Your task to perform on an android device: install app "NewsBreak: Local News & Alerts" Image 0: 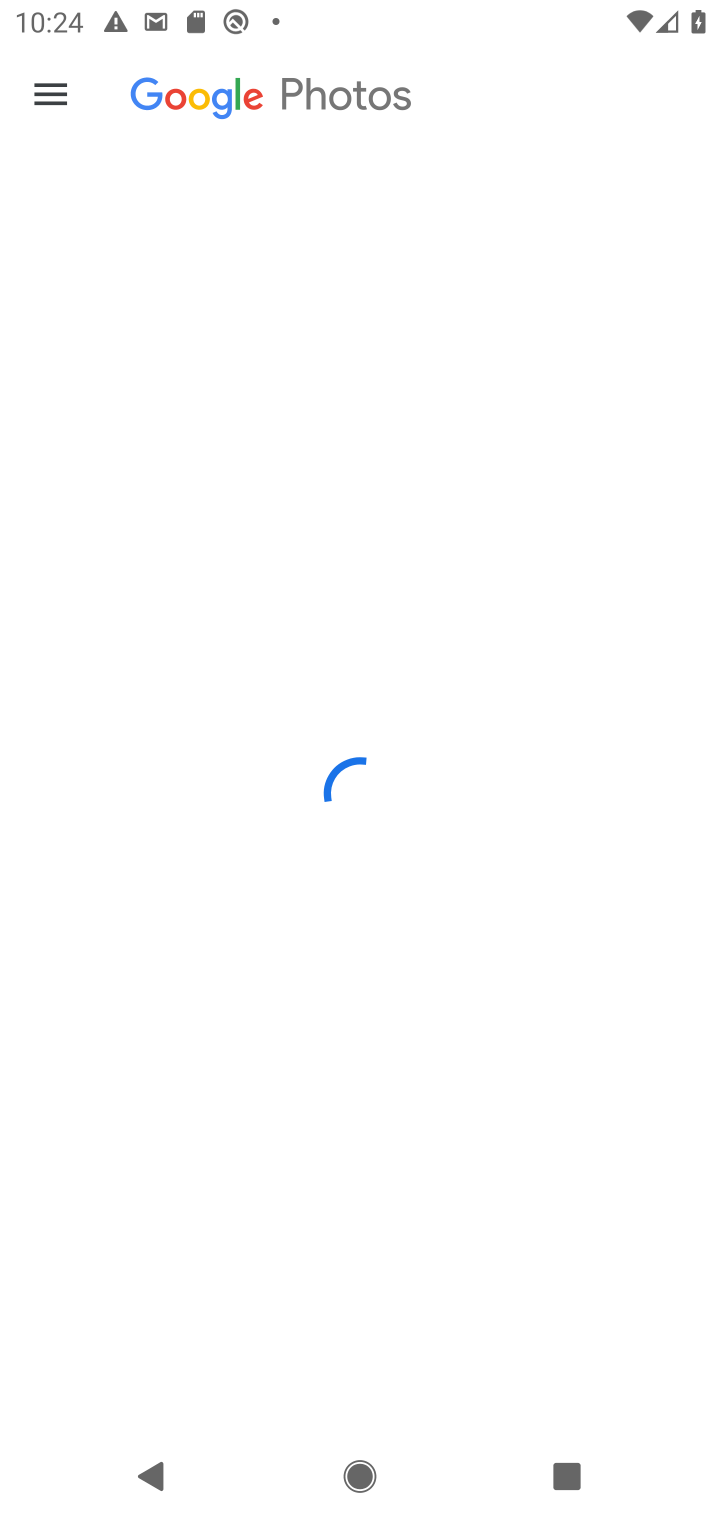
Step 0: press home button
Your task to perform on an android device: install app "NewsBreak: Local News & Alerts" Image 1: 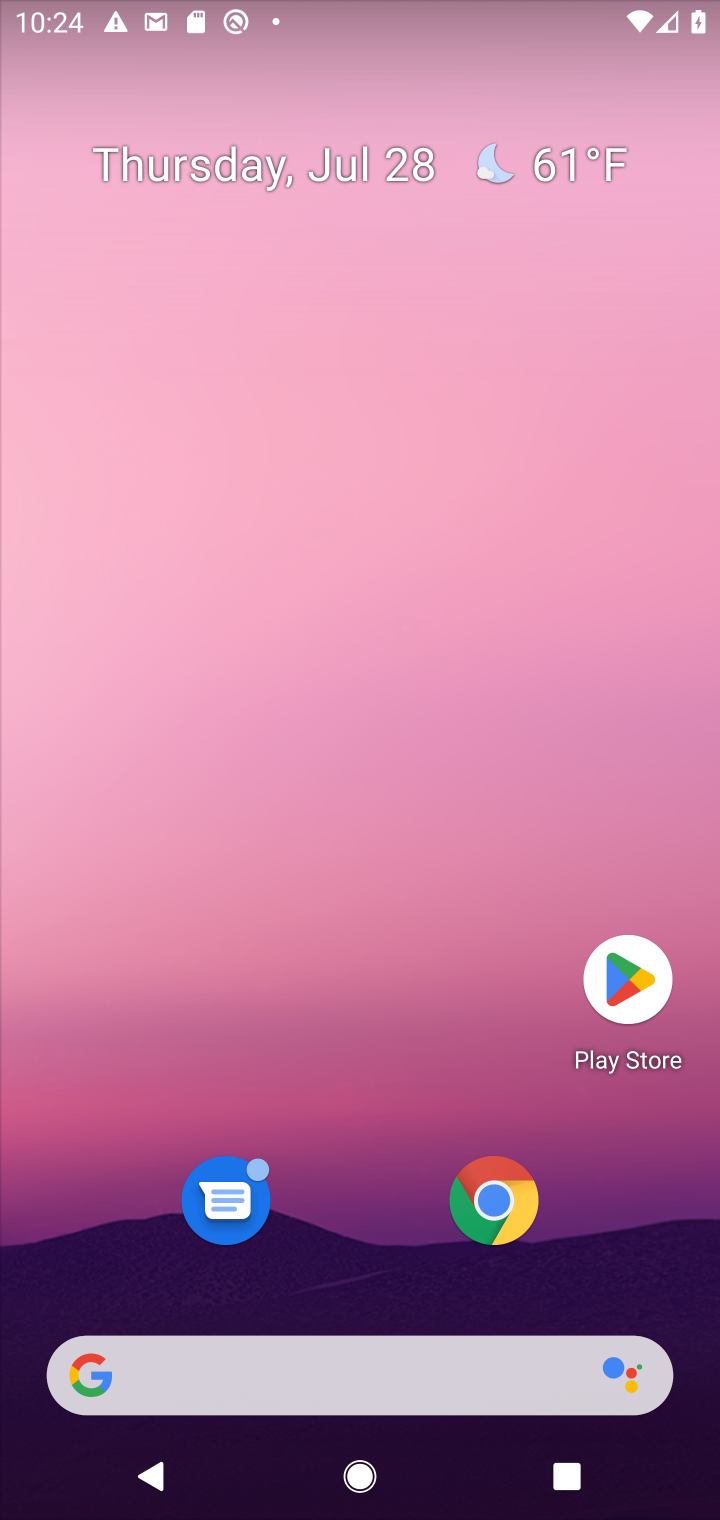
Step 1: click (634, 981)
Your task to perform on an android device: install app "NewsBreak: Local News & Alerts" Image 2: 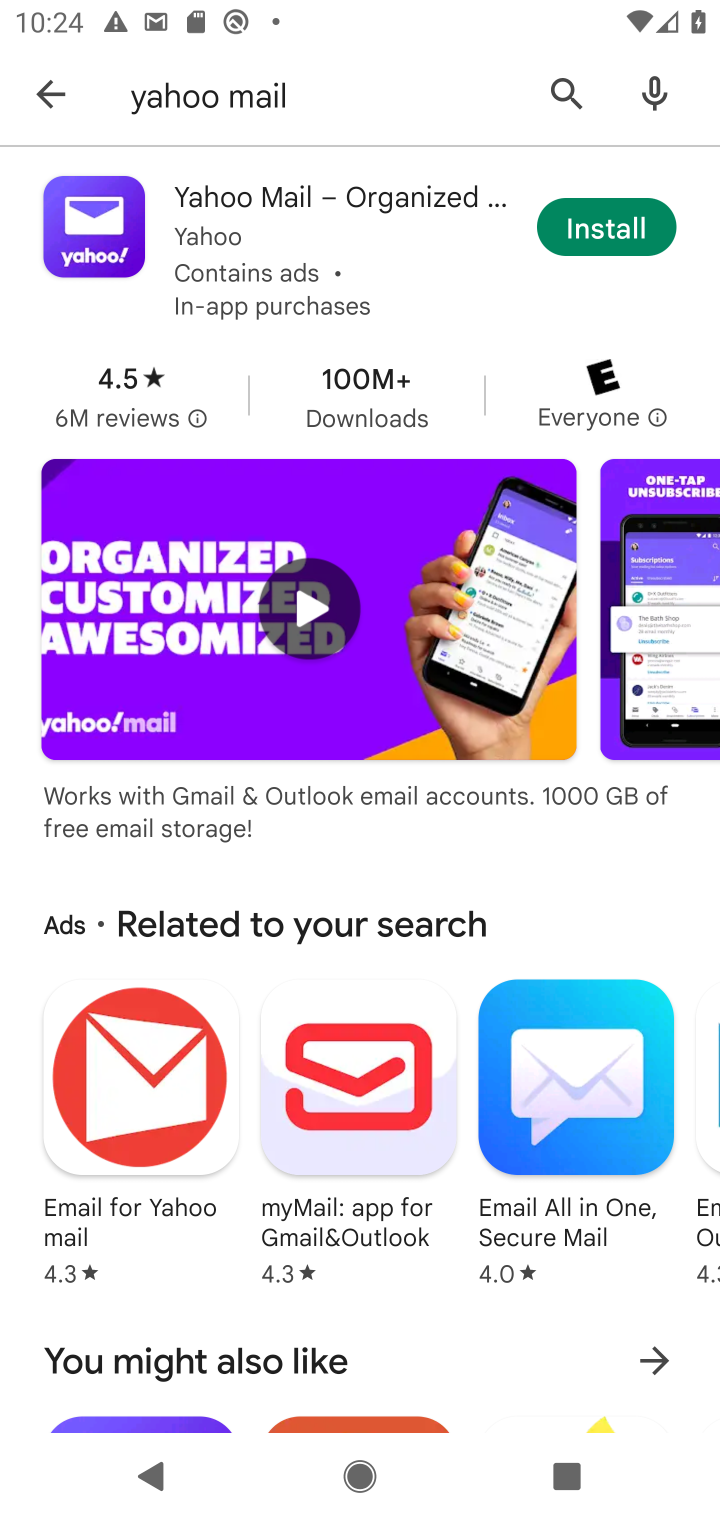
Step 2: click (565, 72)
Your task to perform on an android device: install app "NewsBreak: Local News & Alerts" Image 3: 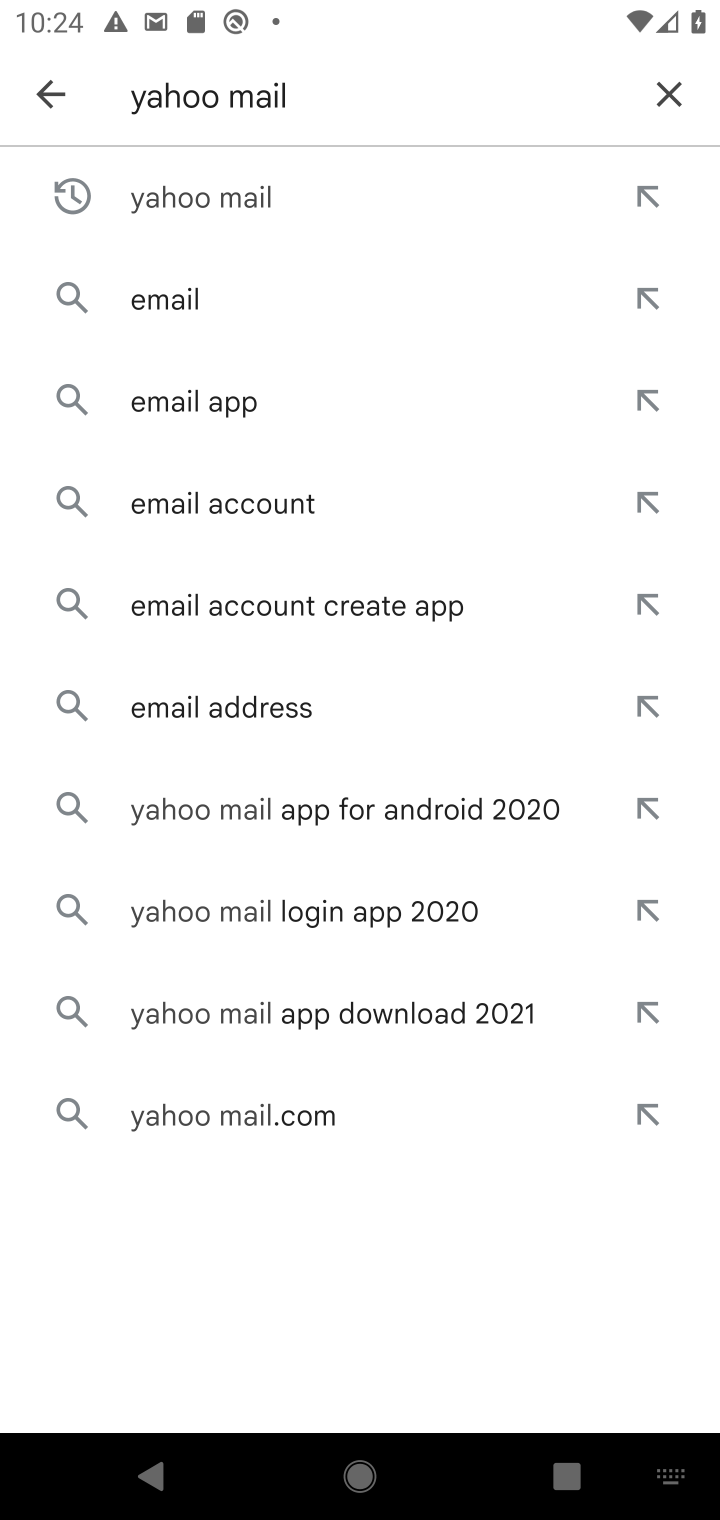
Step 3: click (670, 84)
Your task to perform on an android device: install app "NewsBreak: Local News & Alerts" Image 4: 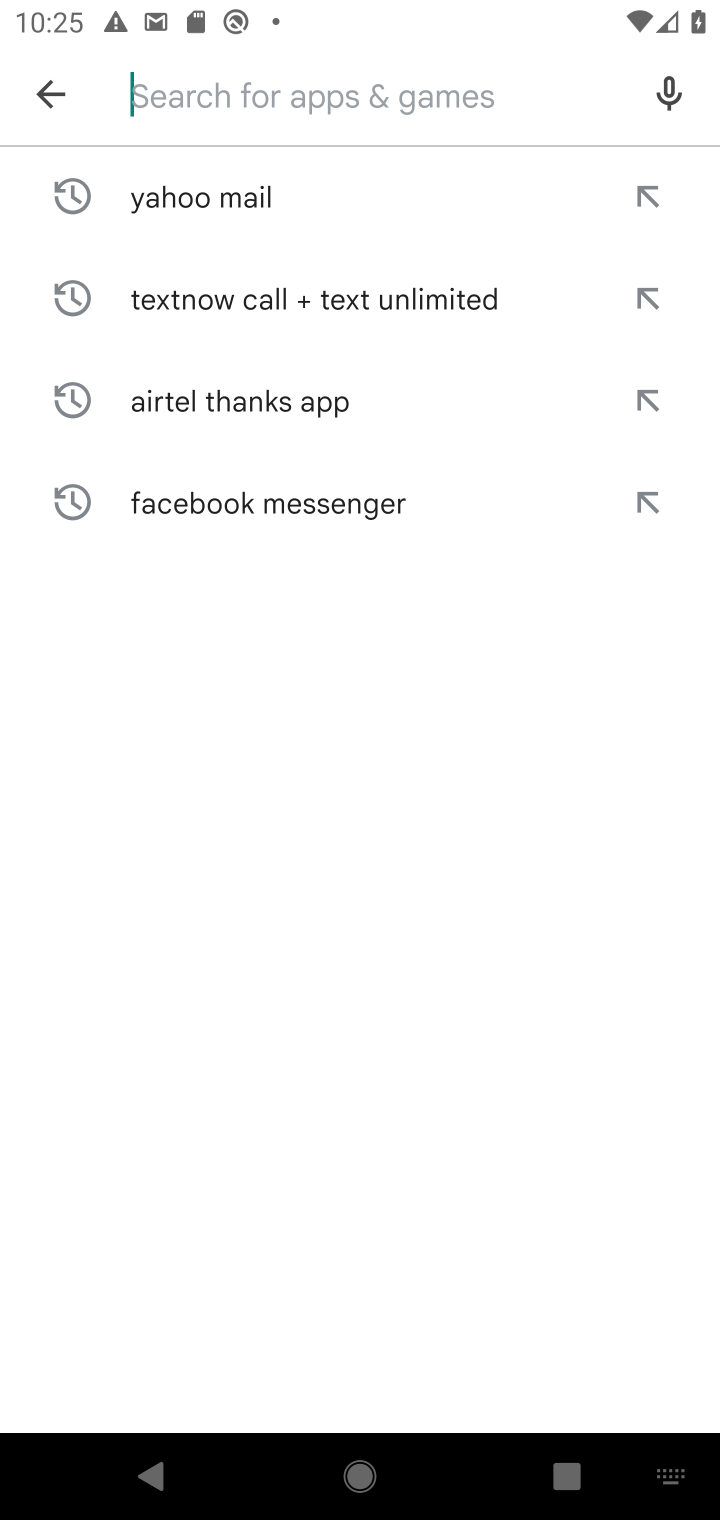
Step 4: type "NewsBreak: Local News & Alerts"
Your task to perform on an android device: install app "NewsBreak: Local News & Alerts" Image 5: 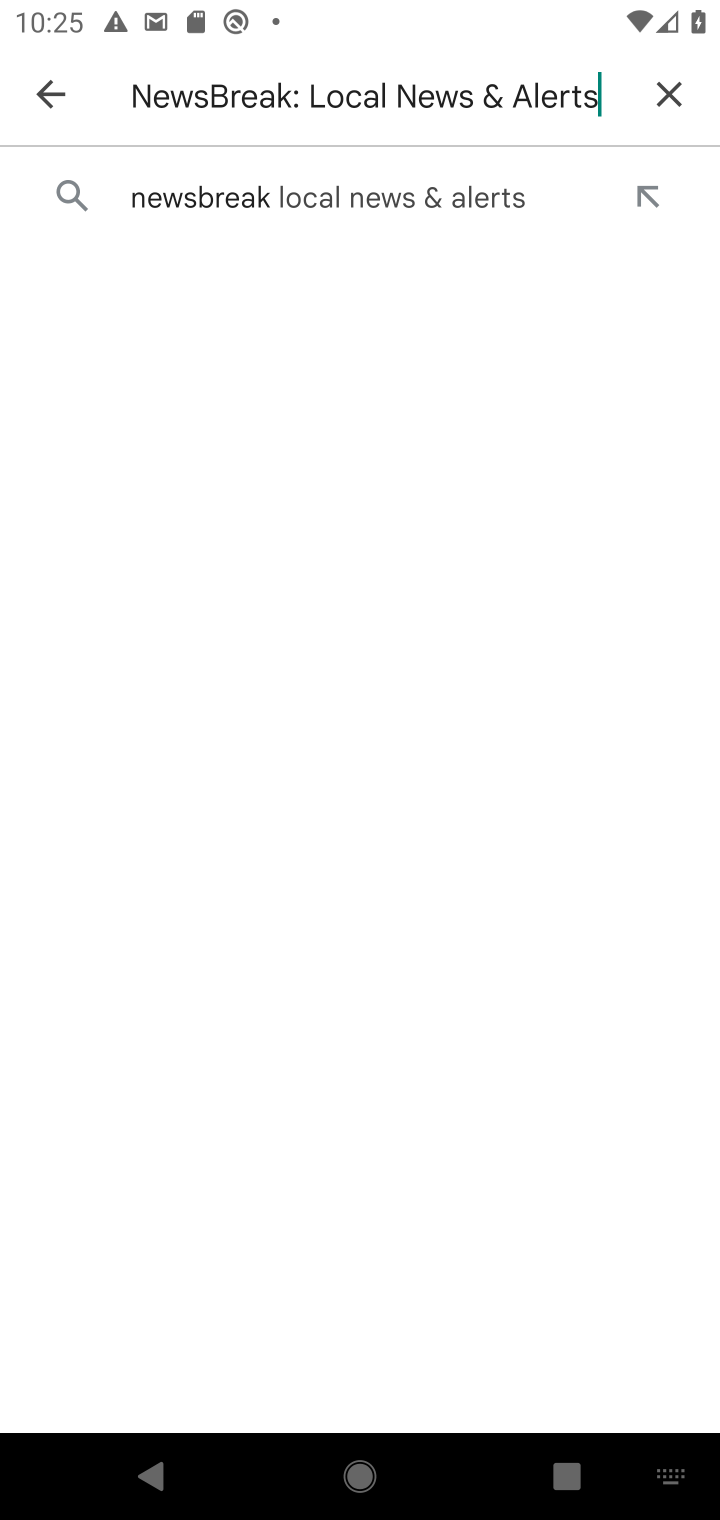
Step 5: click (320, 199)
Your task to perform on an android device: install app "NewsBreak: Local News & Alerts" Image 6: 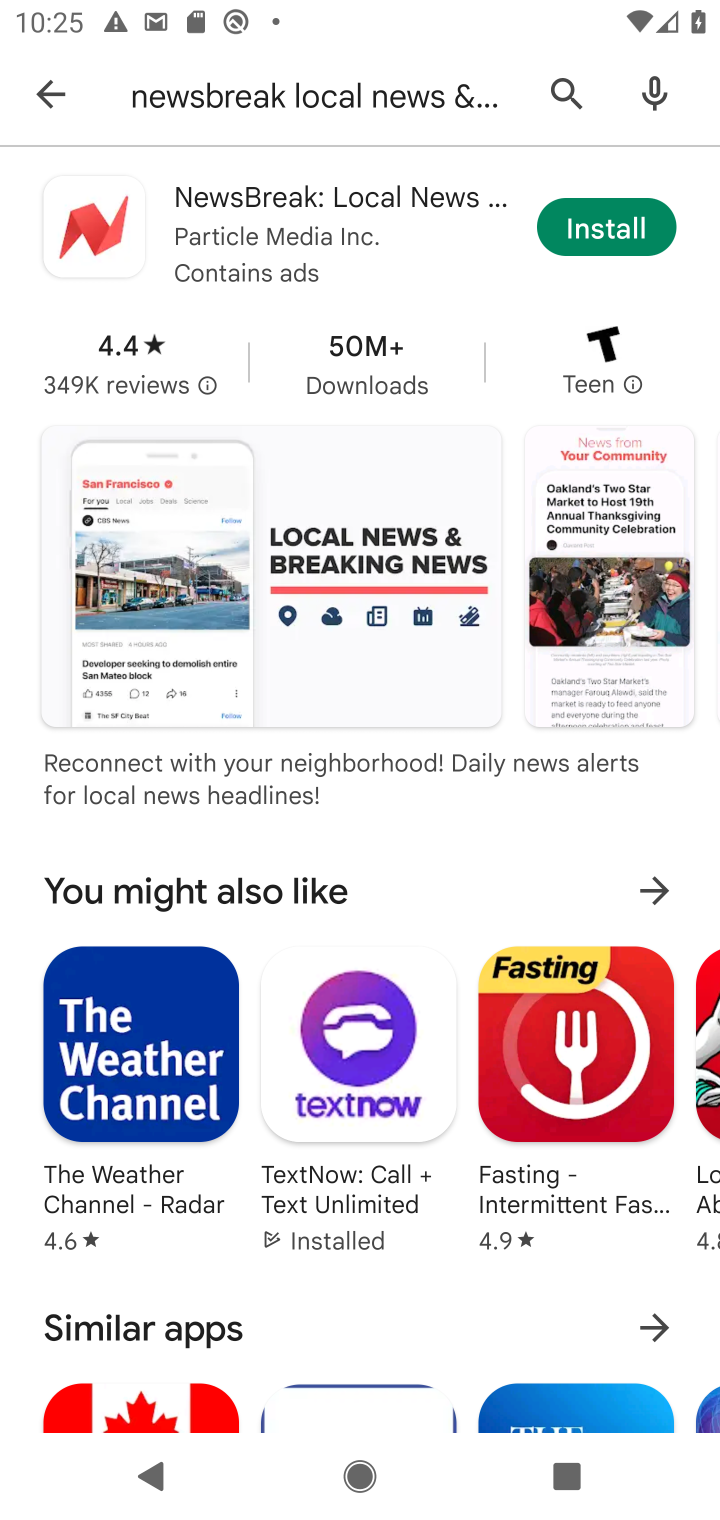
Step 6: click (593, 225)
Your task to perform on an android device: install app "NewsBreak: Local News & Alerts" Image 7: 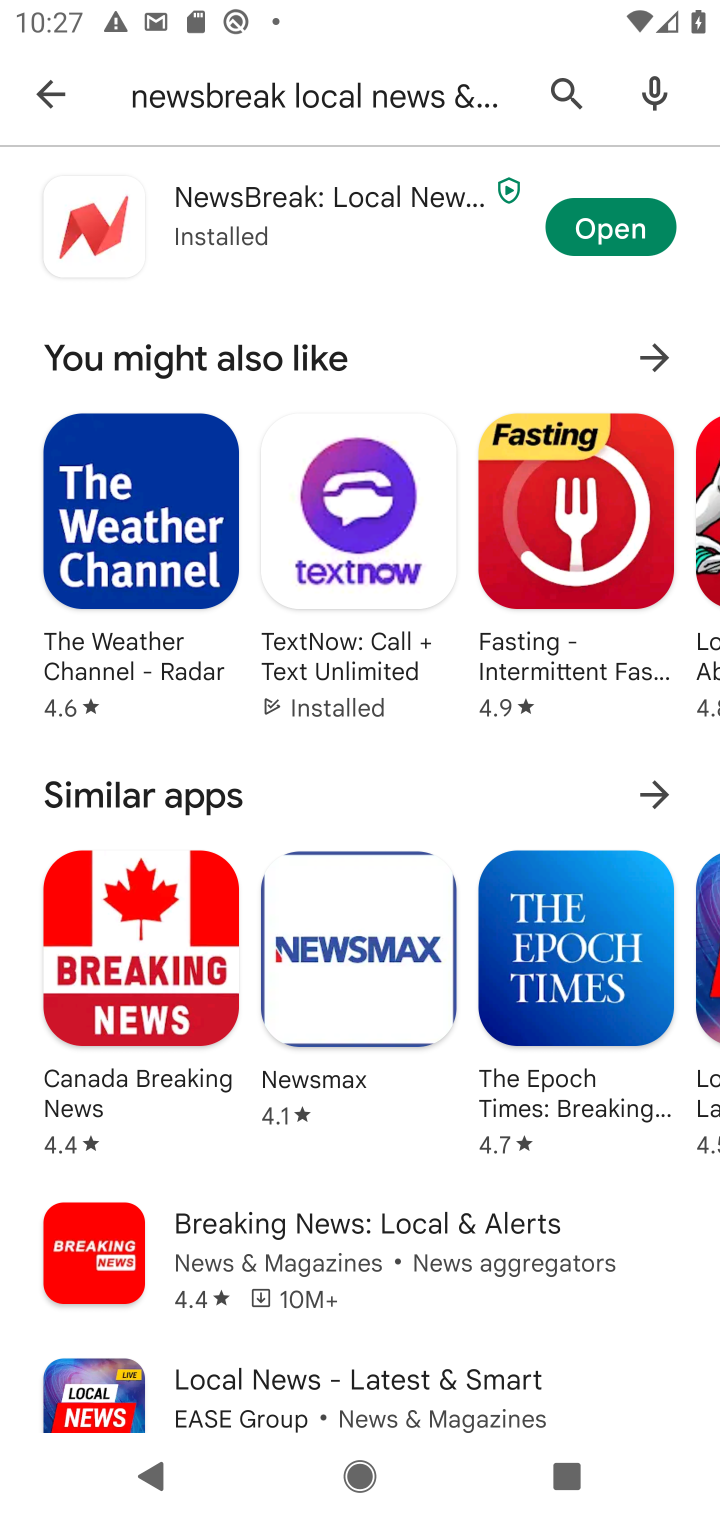
Step 7: task complete